Your task to perform on an android device: Go to notification settings Image 0: 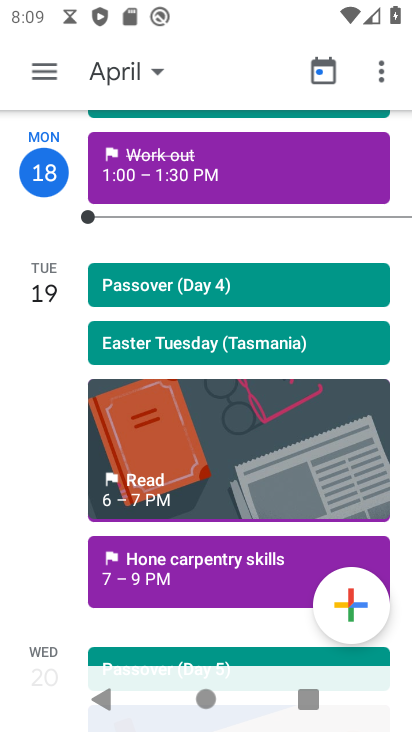
Step 0: press home button
Your task to perform on an android device: Go to notification settings Image 1: 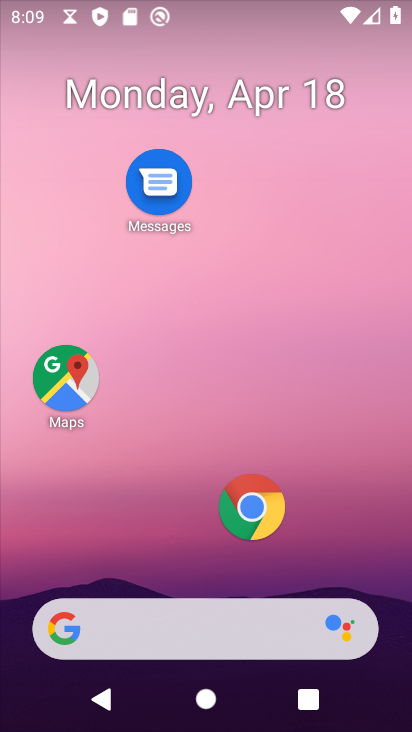
Step 1: drag from (170, 603) to (231, 228)
Your task to perform on an android device: Go to notification settings Image 2: 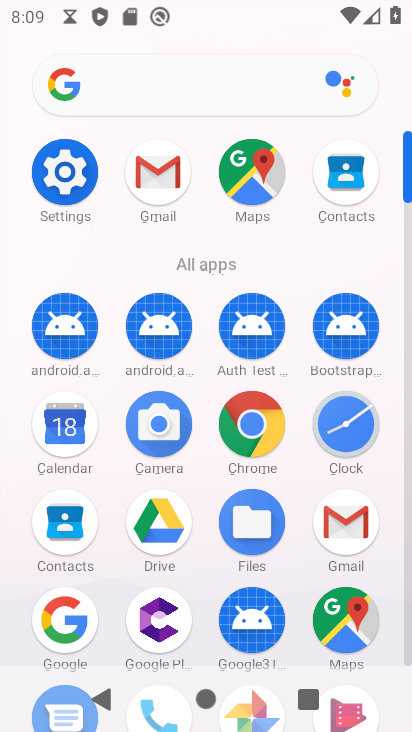
Step 2: click (67, 174)
Your task to perform on an android device: Go to notification settings Image 3: 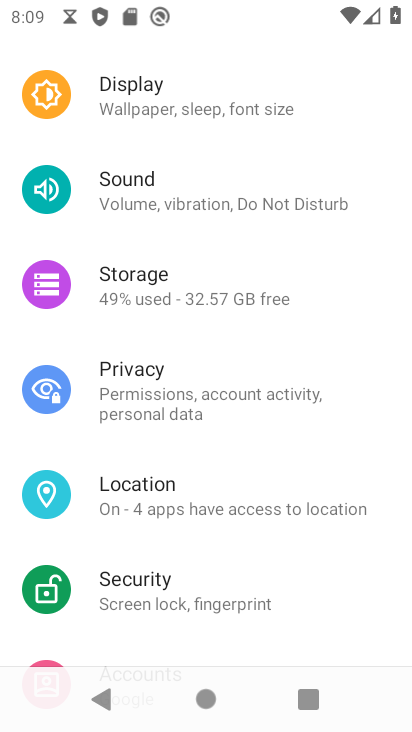
Step 3: drag from (229, 116) to (170, 458)
Your task to perform on an android device: Go to notification settings Image 4: 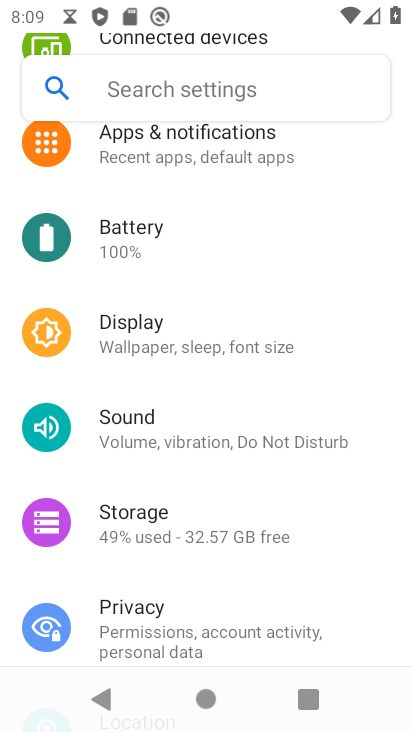
Step 4: click (225, 161)
Your task to perform on an android device: Go to notification settings Image 5: 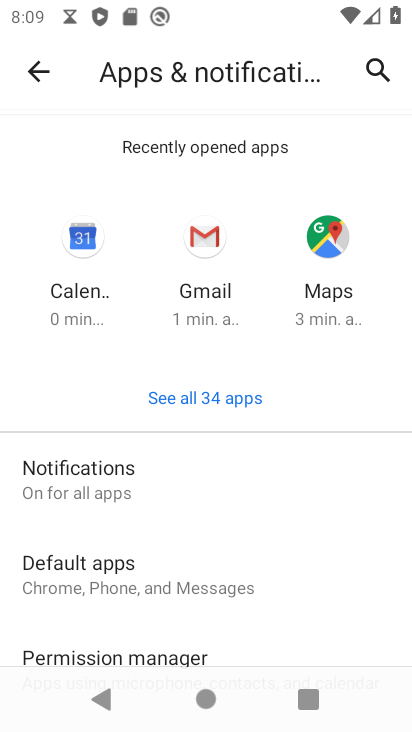
Step 5: drag from (183, 640) to (222, 323)
Your task to perform on an android device: Go to notification settings Image 6: 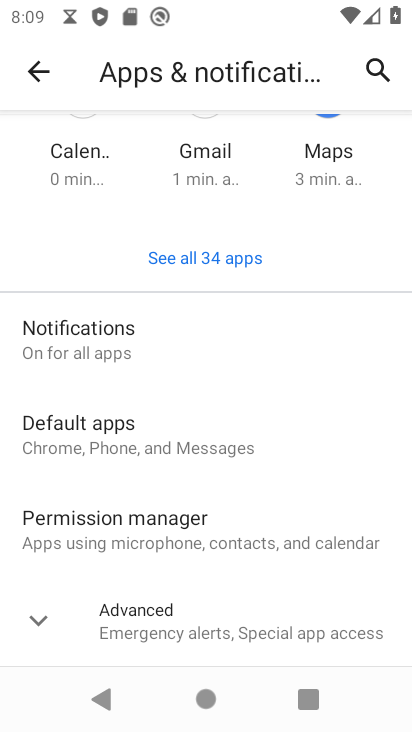
Step 6: click (185, 630)
Your task to perform on an android device: Go to notification settings Image 7: 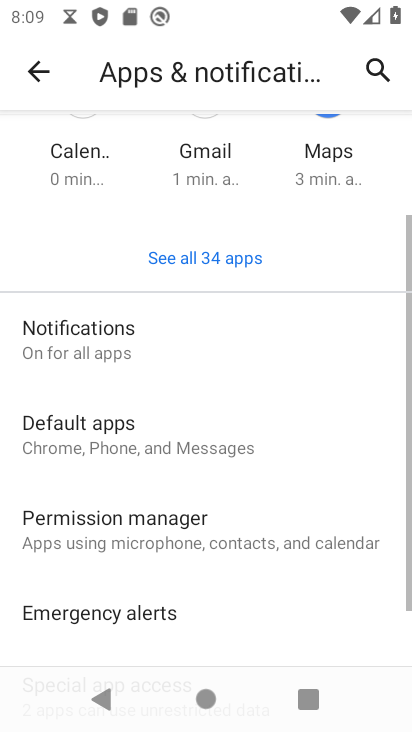
Step 7: task complete